Your task to perform on an android device: Open wifi settings Image 0: 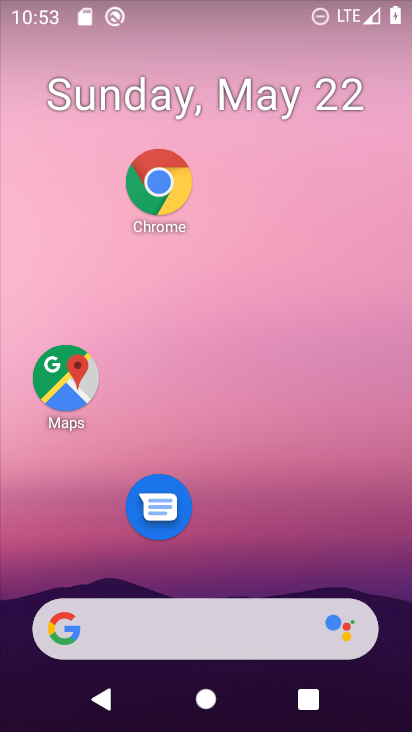
Step 0: drag from (136, 700) to (136, 30)
Your task to perform on an android device: Open wifi settings Image 1: 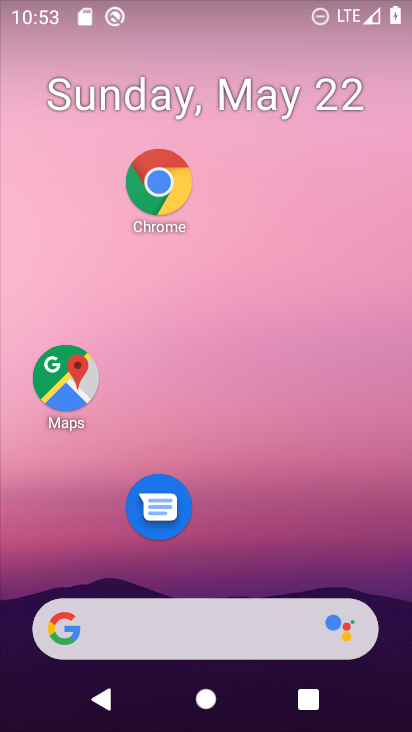
Step 1: drag from (160, 621) to (161, 0)
Your task to perform on an android device: Open wifi settings Image 2: 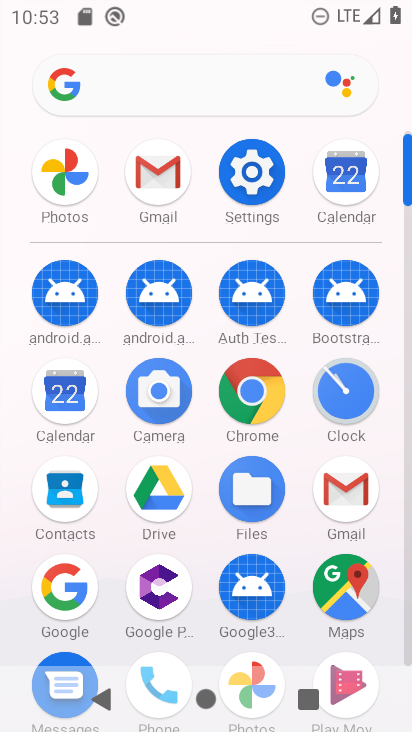
Step 2: click (280, 179)
Your task to perform on an android device: Open wifi settings Image 3: 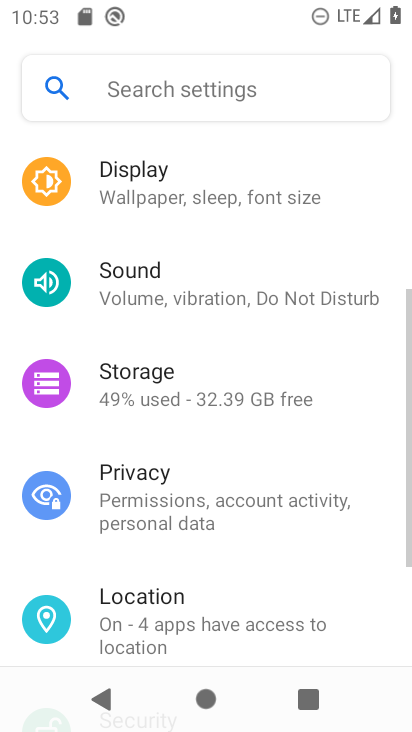
Step 3: drag from (227, 506) to (234, 591)
Your task to perform on an android device: Open wifi settings Image 4: 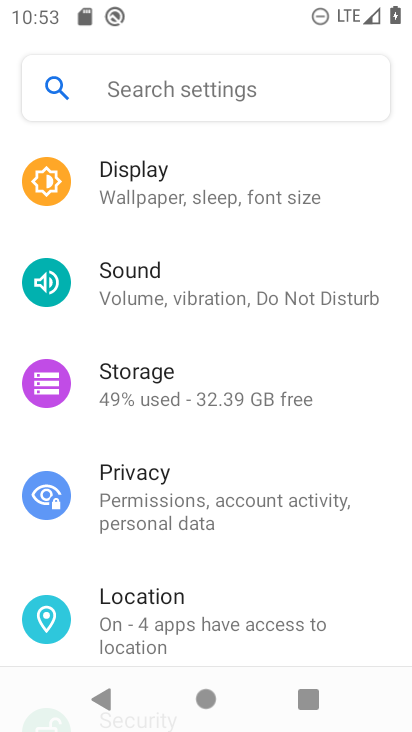
Step 4: drag from (277, 156) to (240, 513)
Your task to perform on an android device: Open wifi settings Image 5: 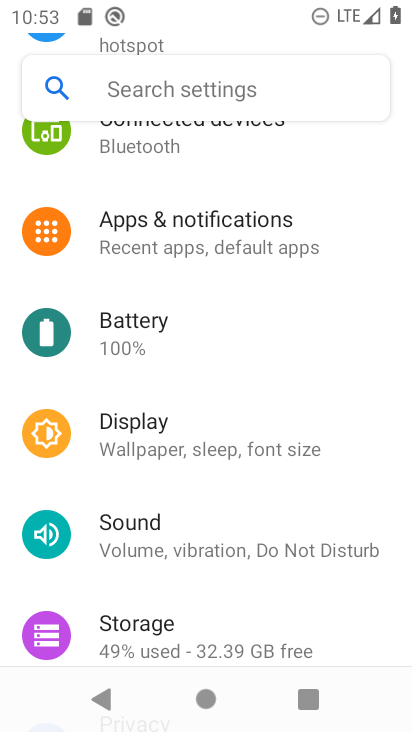
Step 5: drag from (262, 127) to (140, 685)
Your task to perform on an android device: Open wifi settings Image 6: 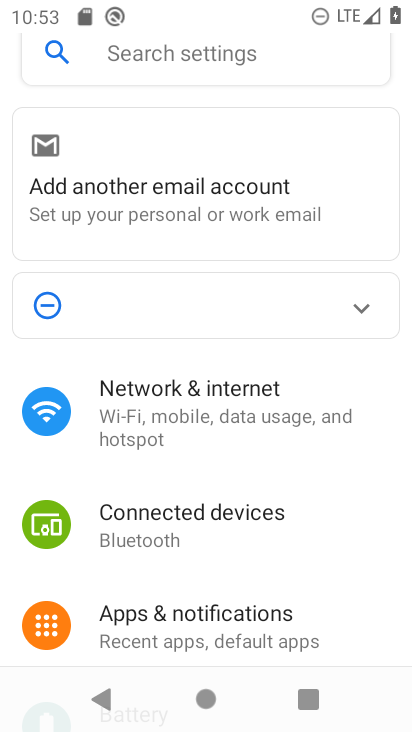
Step 6: click (261, 417)
Your task to perform on an android device: Open wifi settings Image 7: 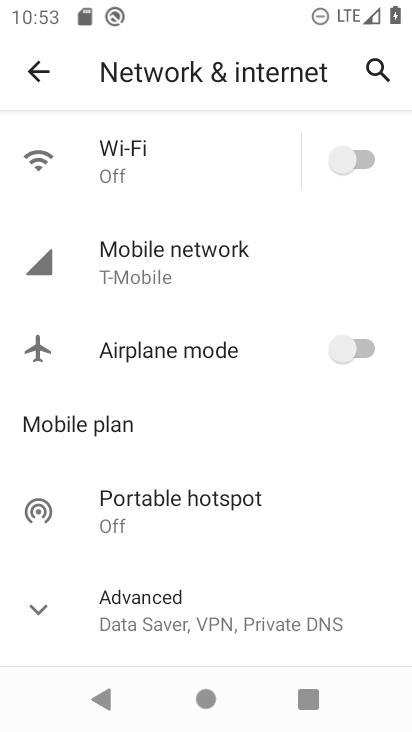
Step 7: click (170, 156)
Your task to perform on an android device: Open wifi settings Image 8: 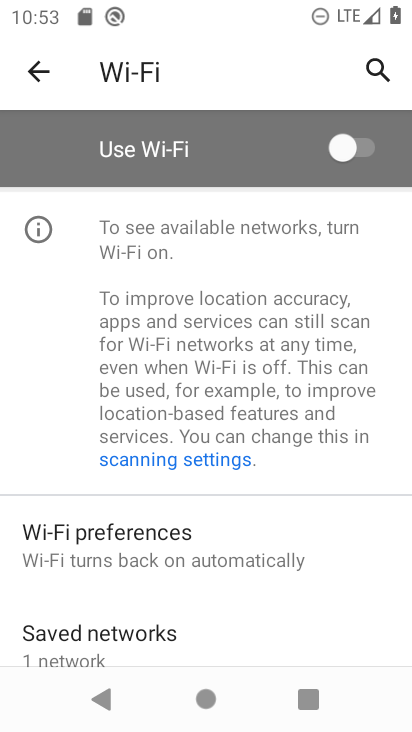
Step 8: task complete